Your task to perform on an android device: delete the emails in spam in the gmail app Image 0: 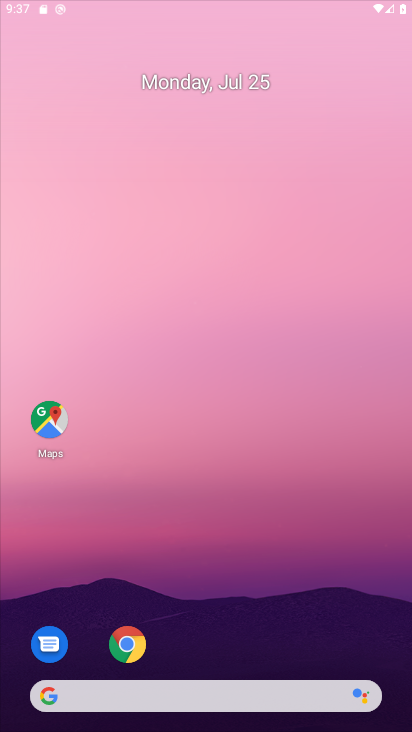
Step 0: drag from (394, 621) to (282, 7)
Your task to perform on an android device: delete the emails in spam in the gmail app Image 1: 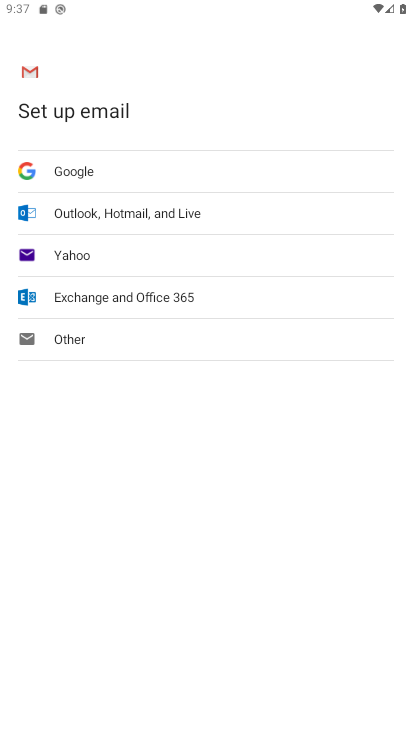
Step 1: press home button
Your task to perform on an android device: delete the emails in spam in the gmail app Image 2: 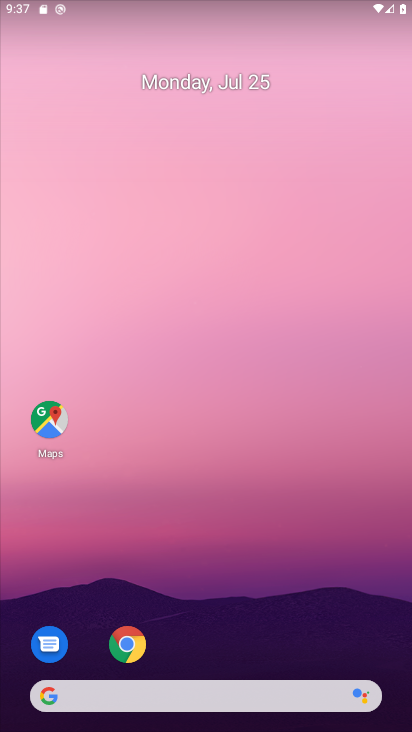
Step 2: drag from (403, 692) to (340, 22)
Your task to perform on an android device: delete the emails in spam in the gmail app Image 3: 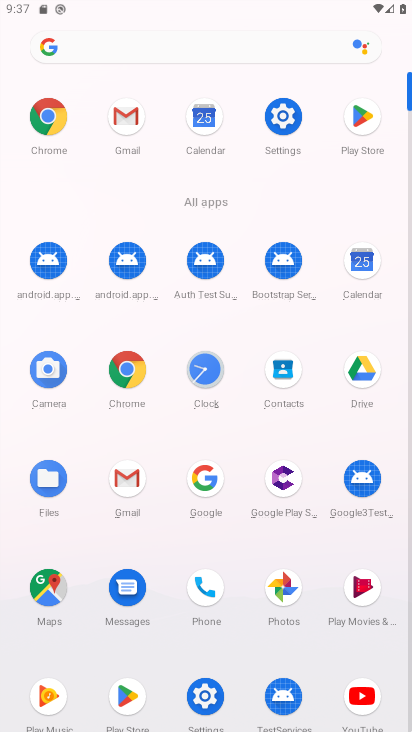
Step 3: click (118, 484)
Your task to perform on an android device: delete the emails in spam in the gmail app Image 4: 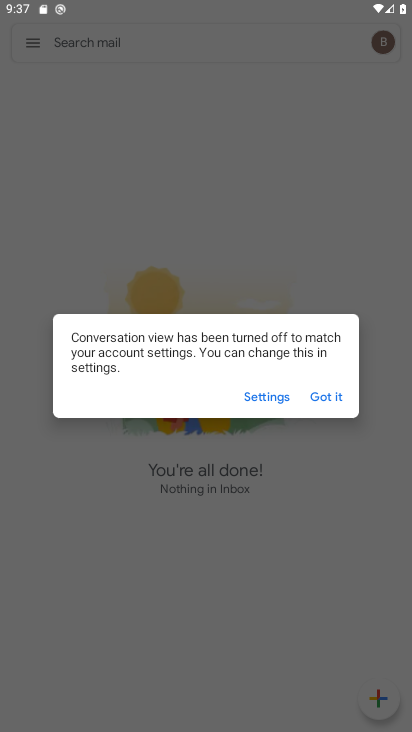
Step 4: click (335, 398)
Your task to perform on an android device: delete the emails in spam in the gmail app Image 5: 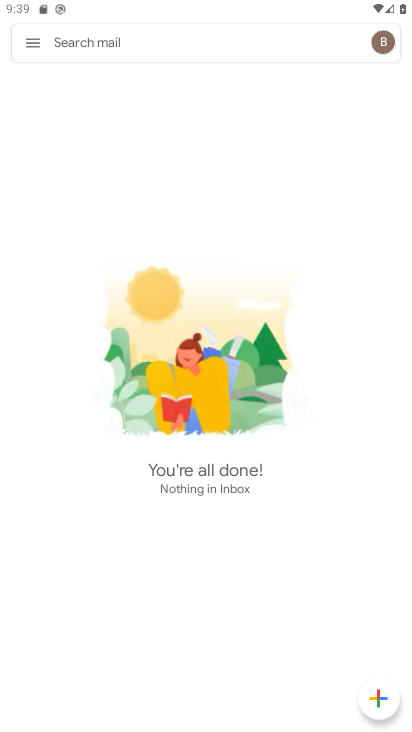
Step 5: task complete